Your task to perform on an android device: change timer sound Image 0: 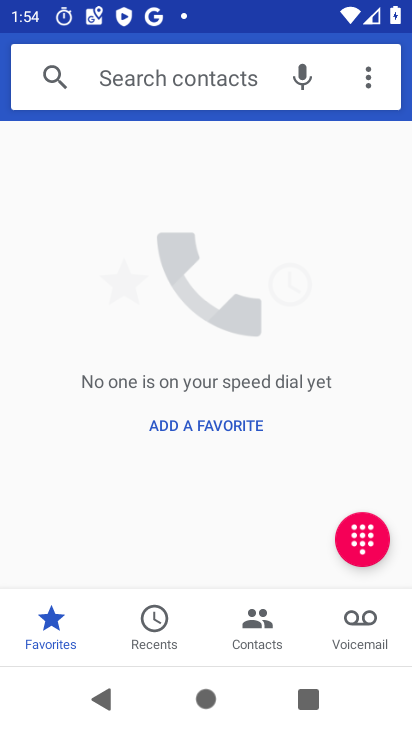
Step 0: press home button
Your task to perform on an android device: change timer sound Image 1: 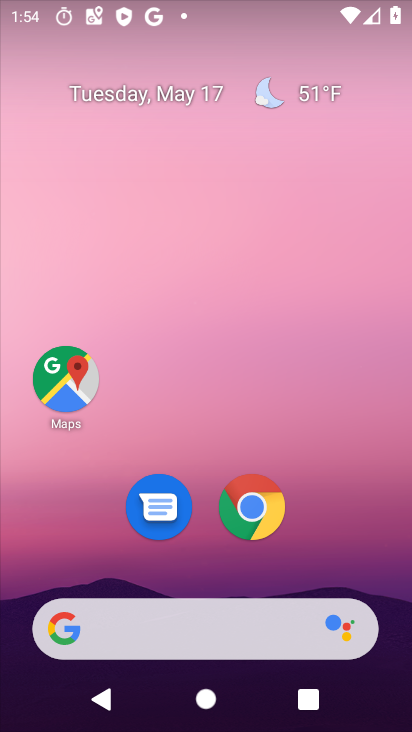
Step 1: drag from (202, 544) to (221, 123)
Your task to perform on an android device: change timer sound Image 2: 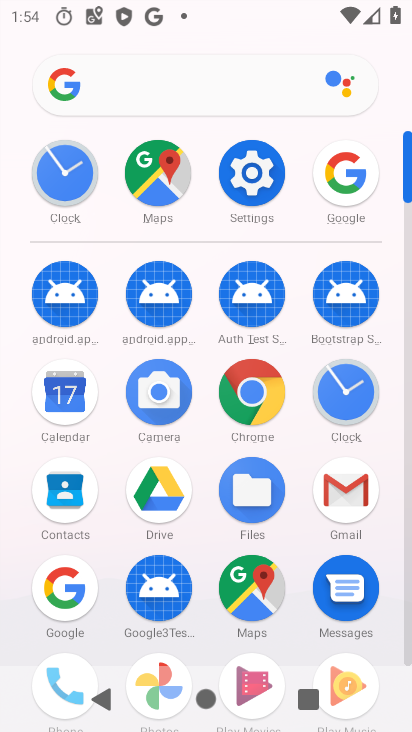
Step 2: click (351, 390)
Your task to perform on an android device: change timer sound Image 3: 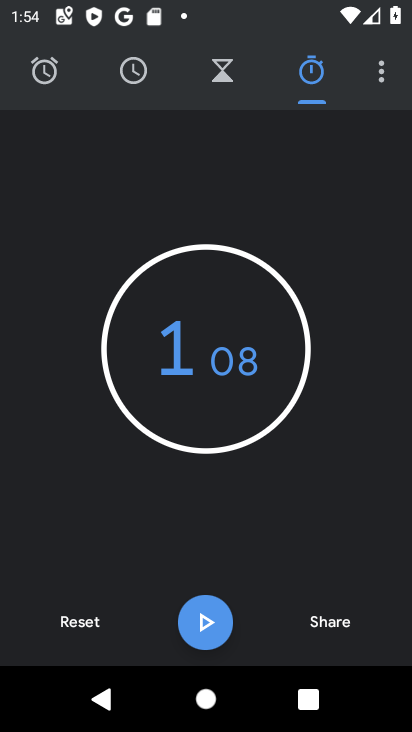
Step 3: click (374, 73)
Your task to perform on an android device: change timer sound Image 4: 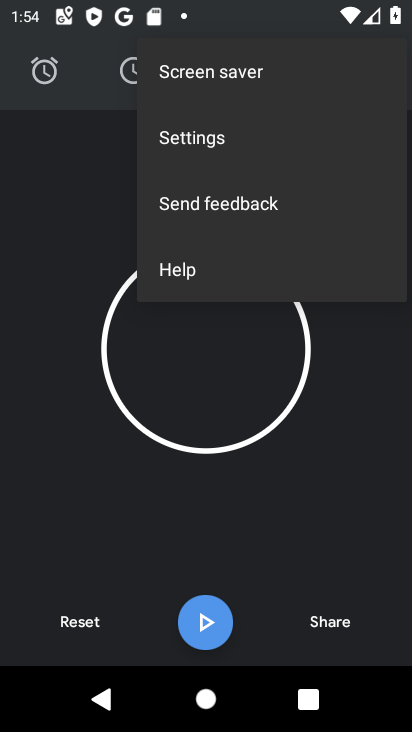
Step 4: click (226, 146)
Your task to perform on an android device: change timer sound Image 5: 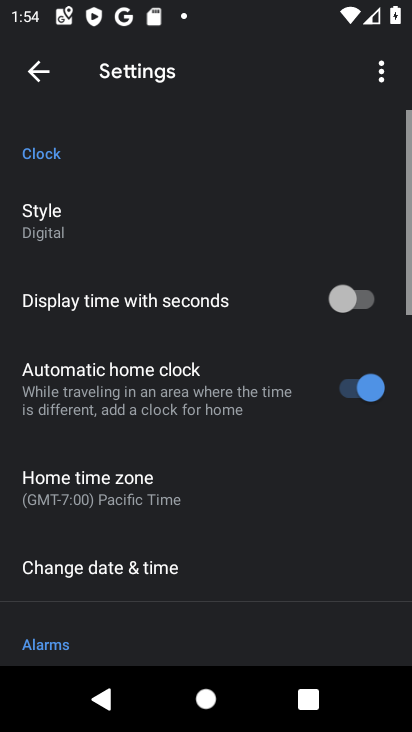
Step 5: drag from (170, 545) to (165, 221)
Your task to perform on an android device: change timer sound Image 6: 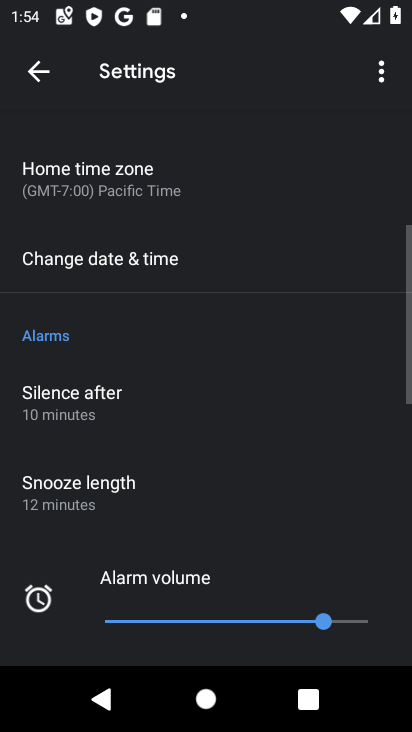
Step 6: drag from (169, 530) to (178, 403)
Your task to perform on an android device: change timer sound Image 7: 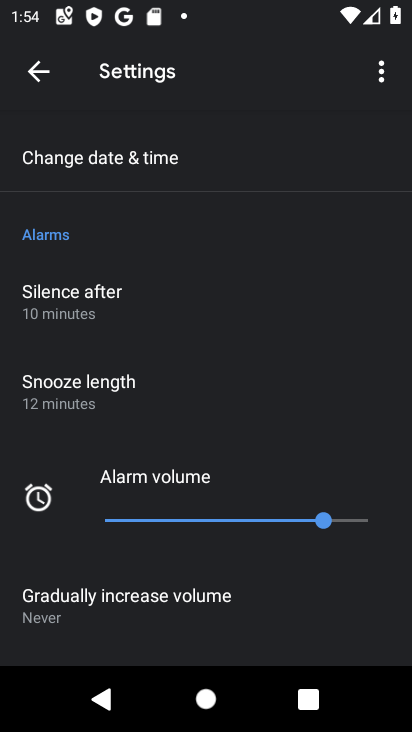
Step 7: drag from (184, 583) to (176, 405)
Your task to perform on an android device: change timer sound Image 8: 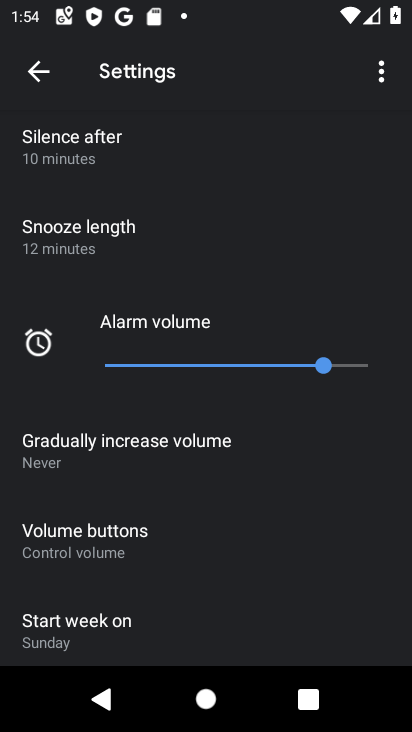
Step 8: drag from (187, 636) to (183, 336)
Your task to perform on an android device: change timer sound Image 9: 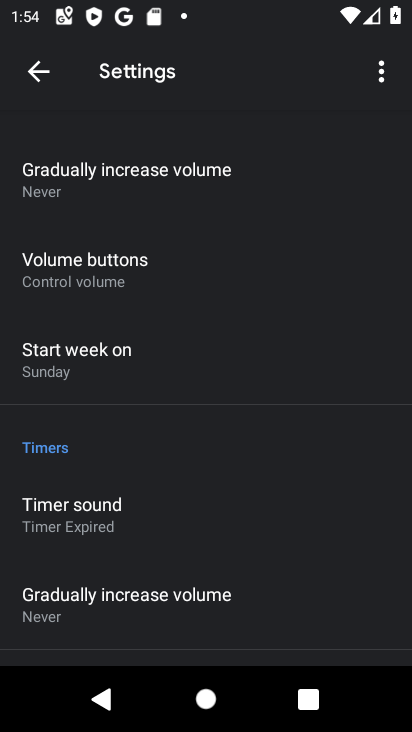
Step 9: click (143, 534)
Your task to perform on an android device: change timer sound Image 10: 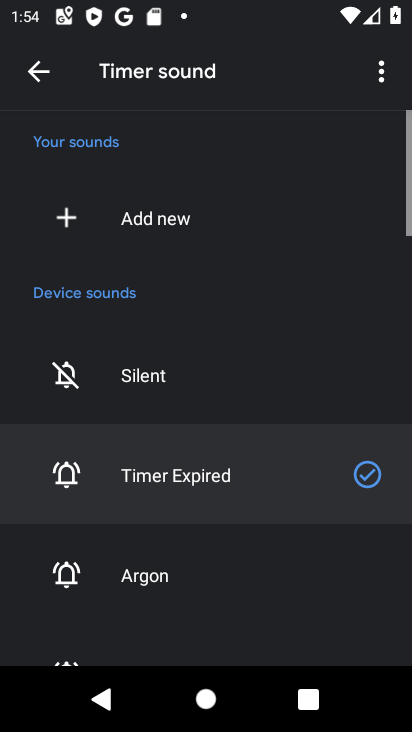
Step 10: click (177, 604)
Your task to perform on an android device: change timer sound Image 11: 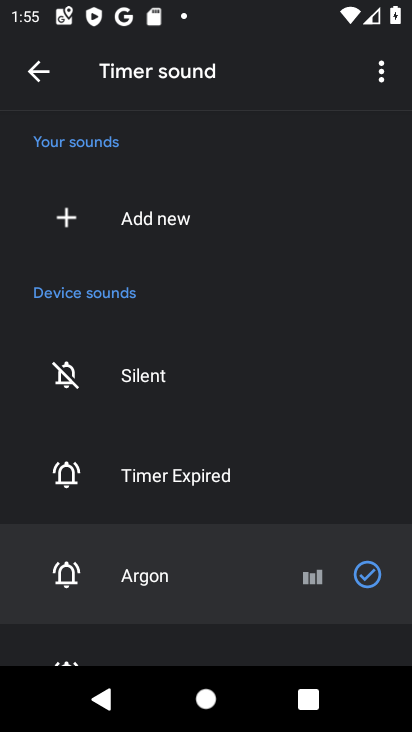
Step 11: task complete